Your task to perform on an android device: Show the shopping cart on amazon.com. Image 0: 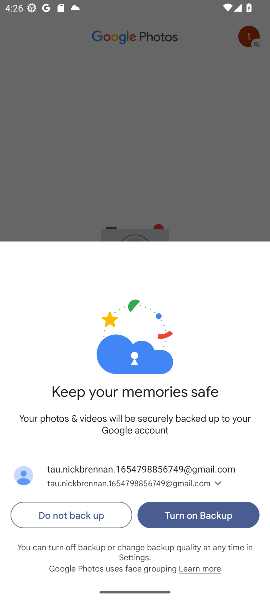
Step 0: click (83, 523)
Your task to perform on an android device: Show the shopping cart on amazon.com. Image 1: 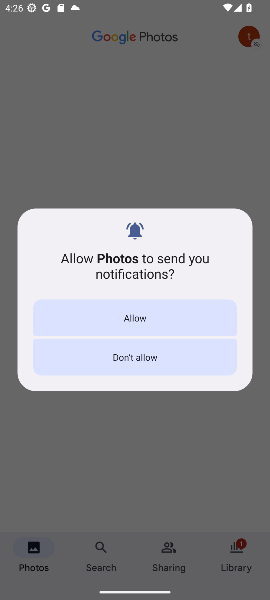
Step 1: click (144, 352)
Your task to perform on an android device: Show the shopping cart on amazon.com. Image 2: 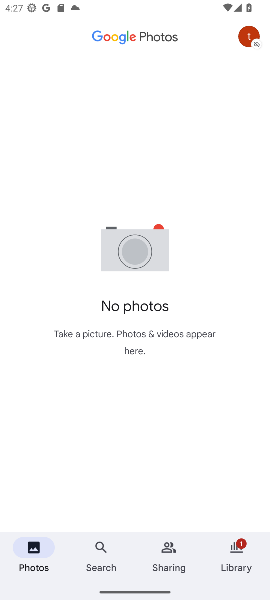
Step 2: drag from (117, 596) to (156, 263)
Your task to perform on an android device: Show the shopping cart on amazon.com. Image 3: 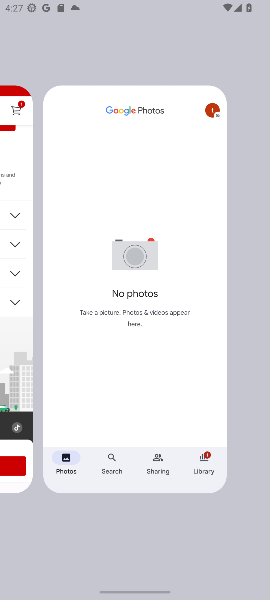
Step 3: drag from (57, 260) to (266, 258)
Your task to perform on an android device: Show the shopping cart on amazon.com. Image 4: 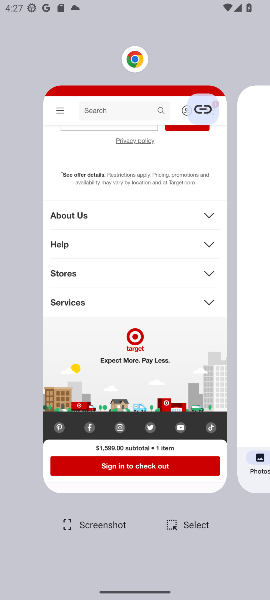
Step 4: drag from (51, 303) to (213, 300)
Your task to perform on an android device: Show the shopping cart on amazon.com. Image 5: 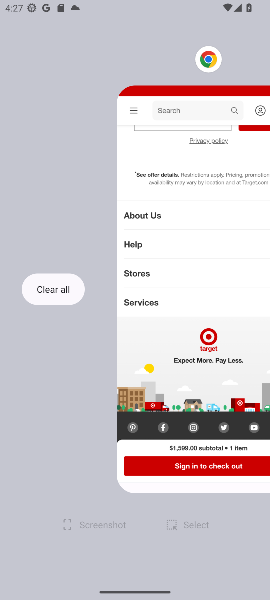
Step 5: click (59, 303)
Your task to perform on an android device: Show the shopping cart on amazon.com. Image 6: 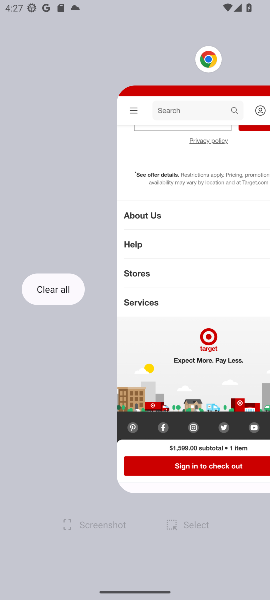
Step 6: click (57, 293)
Your task to perform on an android device: Show the shopping cart on amazon.com. Image 7: 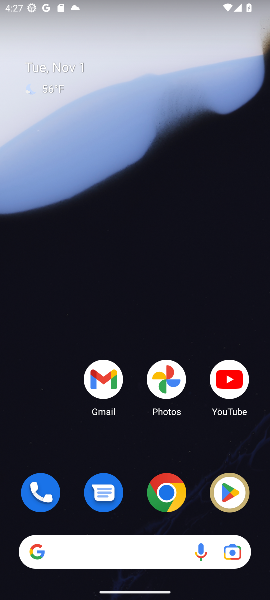
Step 7: click (155, 506)
Your task to perform on an android device: Show the shopping cart on amazon.com. Image 8: 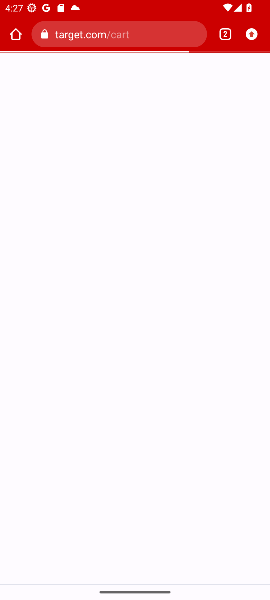
Step 8: click (100, 37)
Your task to perform on an android device: Show the shopping cart on amazon.com. Image 9: 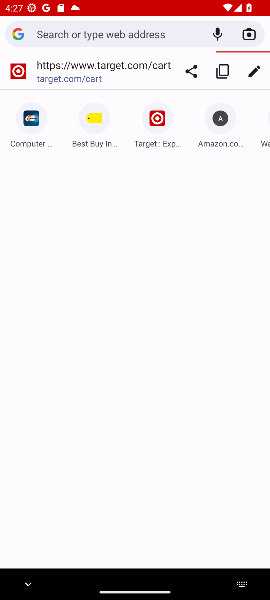
Step 9: type "amazon.com"
Your task to perform on an android device: Show the shopping cart on amazon.com. Image 10: 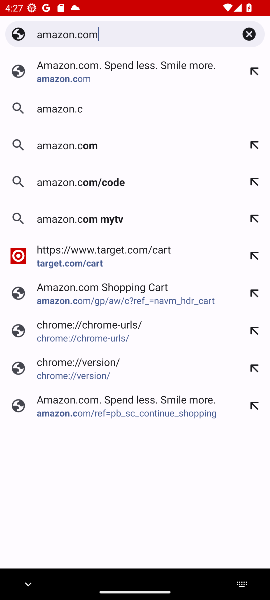
Step 10: type ""
Your task to perform on an android device: Show the shopping cart on amazon.com. Image 11: 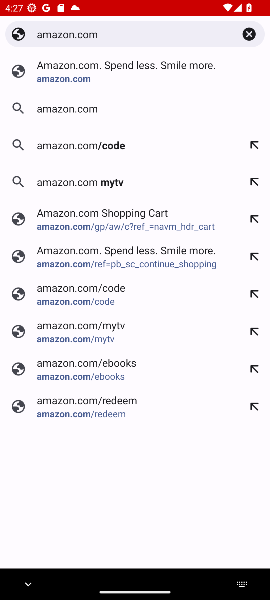
Step 11: click (191, 83)
Your task to perform on an android device: Show the shopping cart on amazon.com. Image 12: 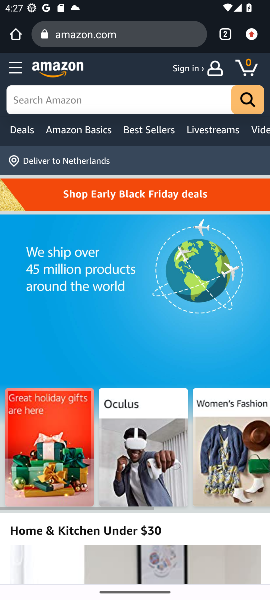
Step 12: click (240, 69)
Your task to perform on an android device: Show the shopping cart on amazon.com. Image 13: 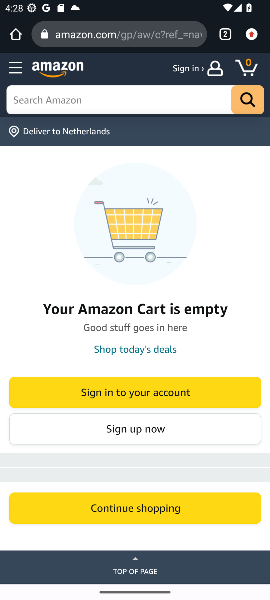
Step 13: task complete